Your task to perform on an android device: toggle data saver in the chrome app Image 0: 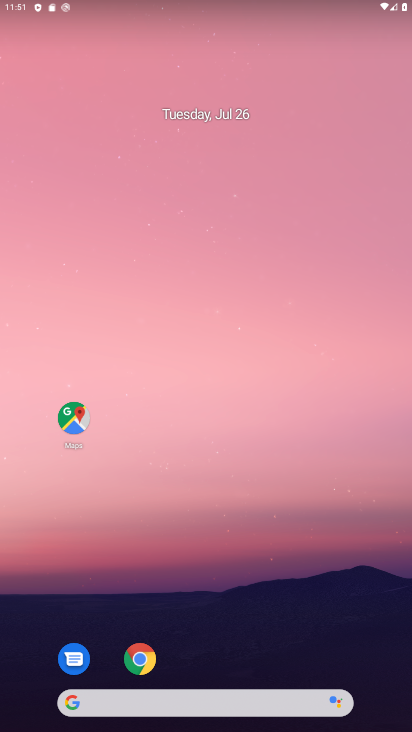
Step 0: drag from (215, 606) to (223, 49)
Your task to perform on an android device: toggle data saver in the chrome app Image 1: 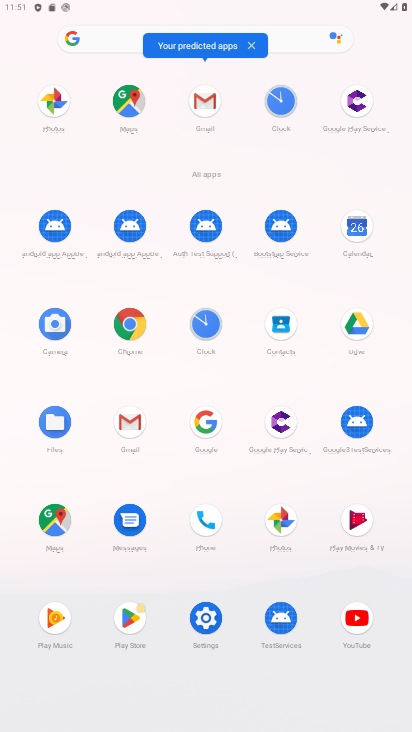
Step 1: click (126, 317)
Your task to perform on an android device: toggle data saver in the chrome app Image 2: 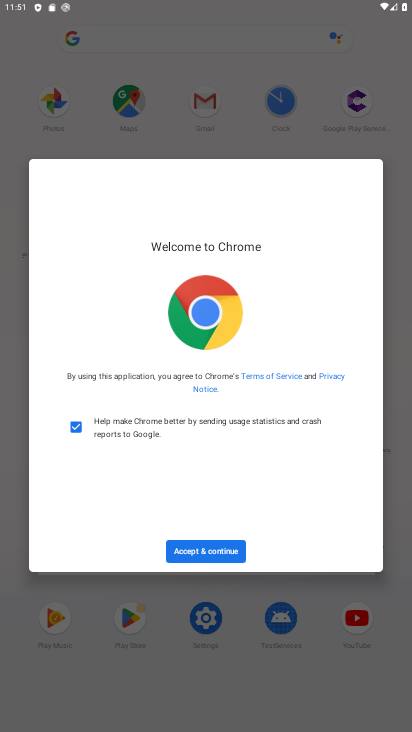
Step 2: click (231, 553)
Your task to perform on an android device: toggle data saver in the chrome app Image 3: 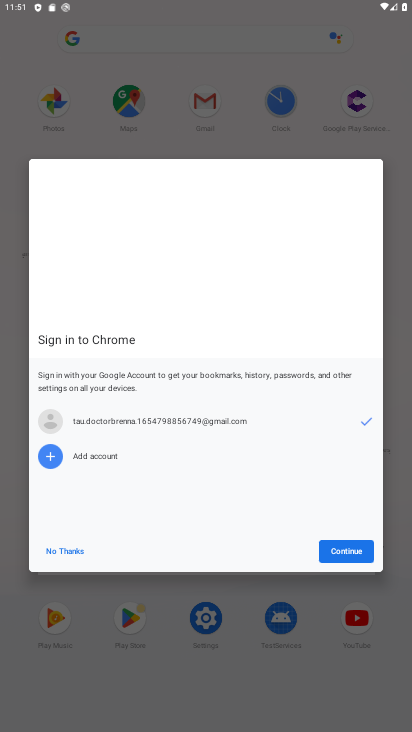
Step 3: click (71, 555)
Your task to perform on an android device: toggle data saver in the chrome app Image 4: 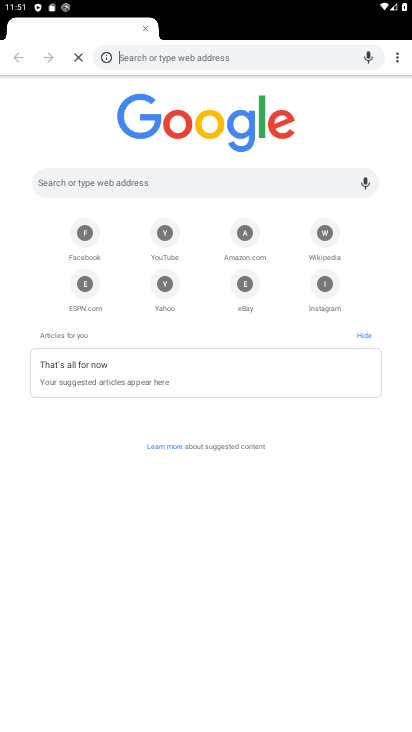
Step 4: drag from (394, 58) to (273, 257)
Your task to perform on an android device: toggle data saver in the chrome app Image 5: 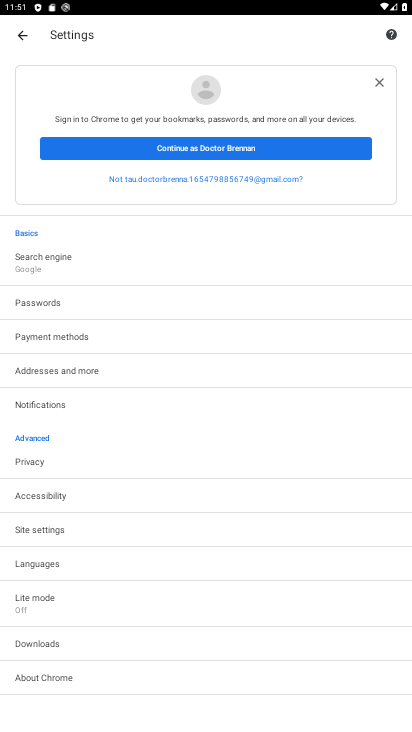
Step 5: click (60, 597)
Your task to perform on an android device: toggle data saver in the chrome app Image 6: 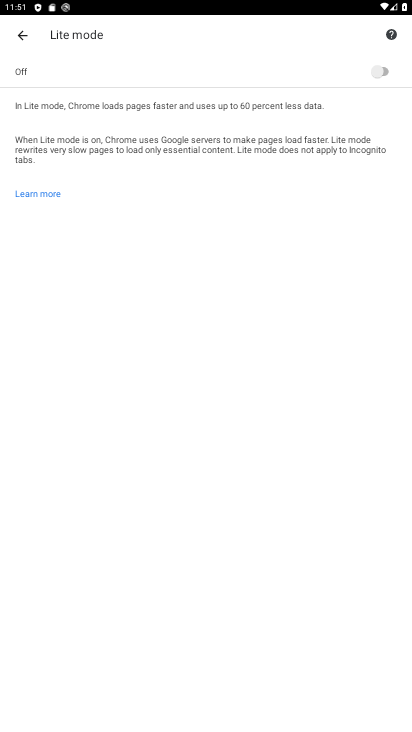
Step 6: click (377, 83)
Your task to perform on an android device: toggle data saver in the chrome app Image 7: 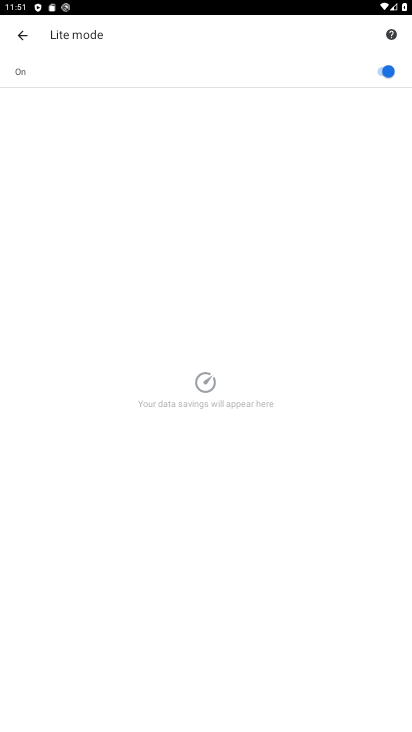
Step 7: task complete